Your task to perform on an android device: Search for sushi restaurants on Maps Image 0: 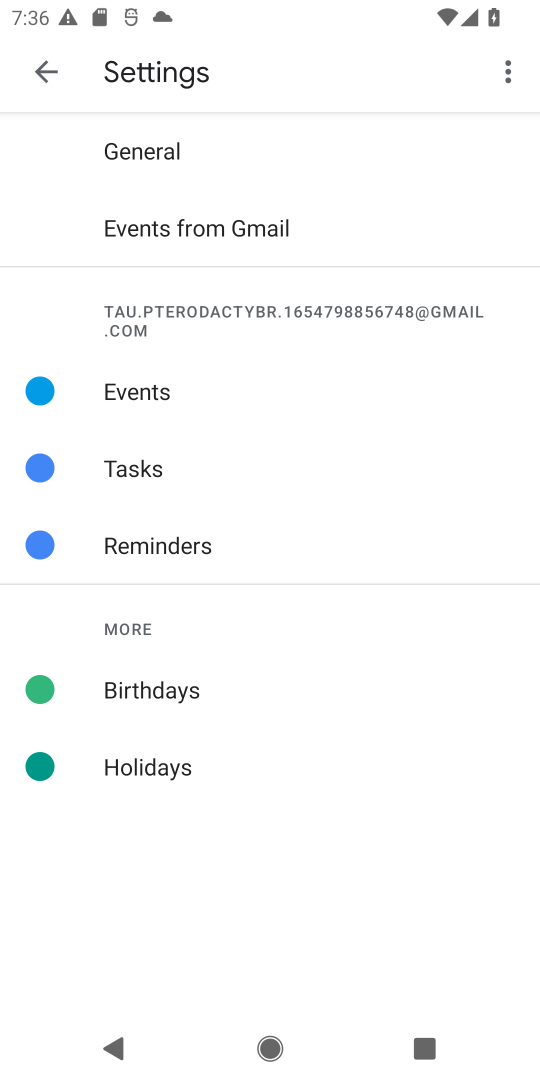
Step 0: press home button
Your task to perform on an android device: Search for sushi restaurants on Maps Image 1: 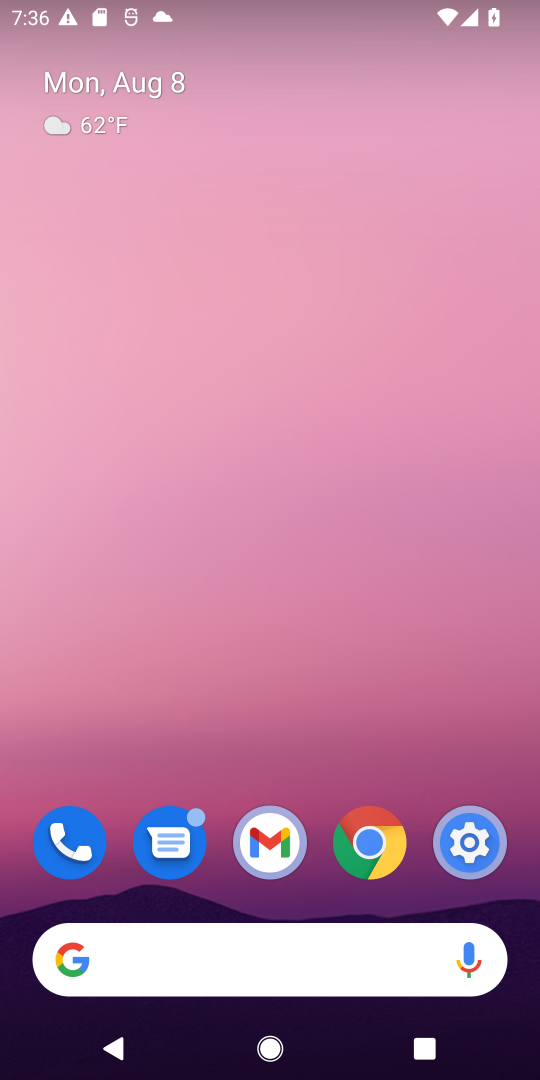
Step 1: drag from (311, 701) to (342, 1)
Your task to perform on an android device: Search for sushi restaurants on Maps Image 2: 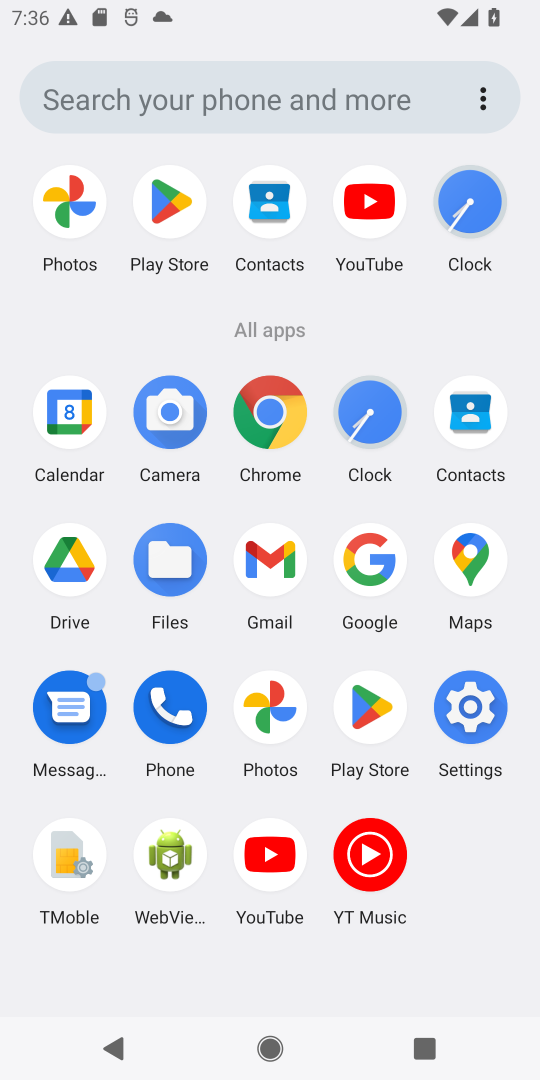
Step 2: click (481, 547)
Your task to perform on an android device: Search for sushi restaurants on Maps Image 3: 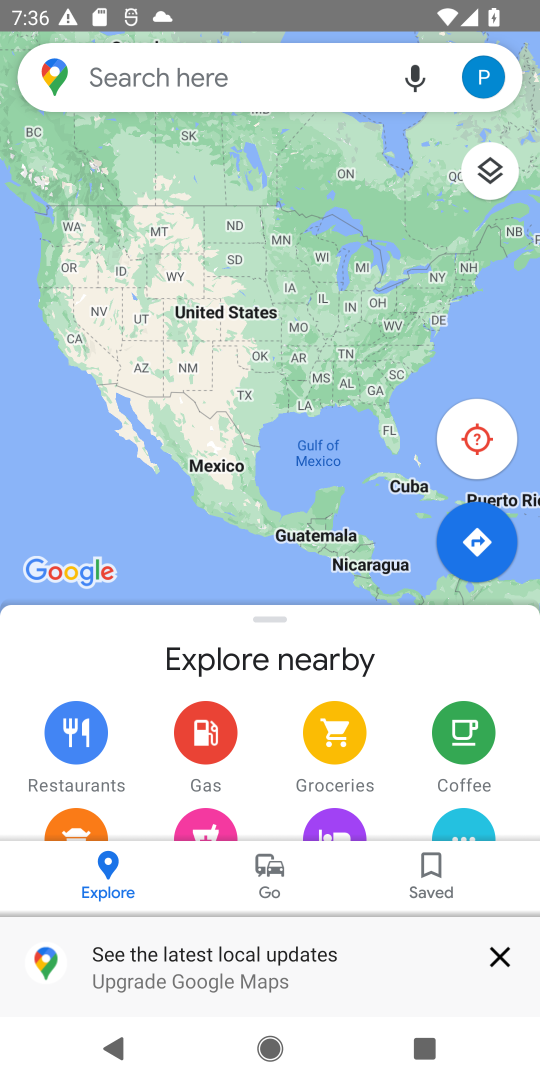
Step 3: click (305, 66)
Your task to perform on an android device: Search for sushi restaurants on Maps Image 4: 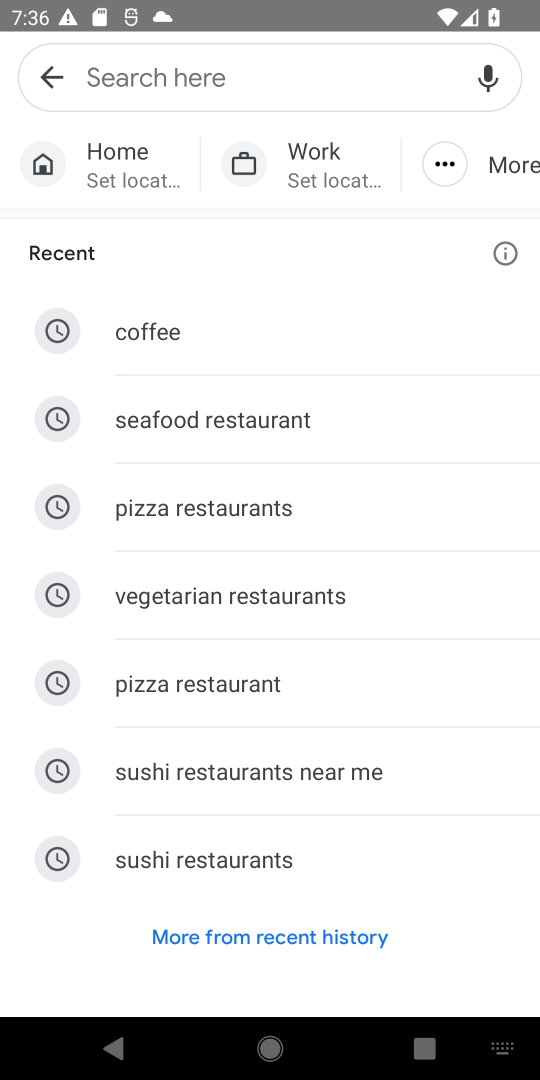
Step 4: click (250, 850)
Your task to perform on an android device: Search for sushi restaurants on Maps Image 5: 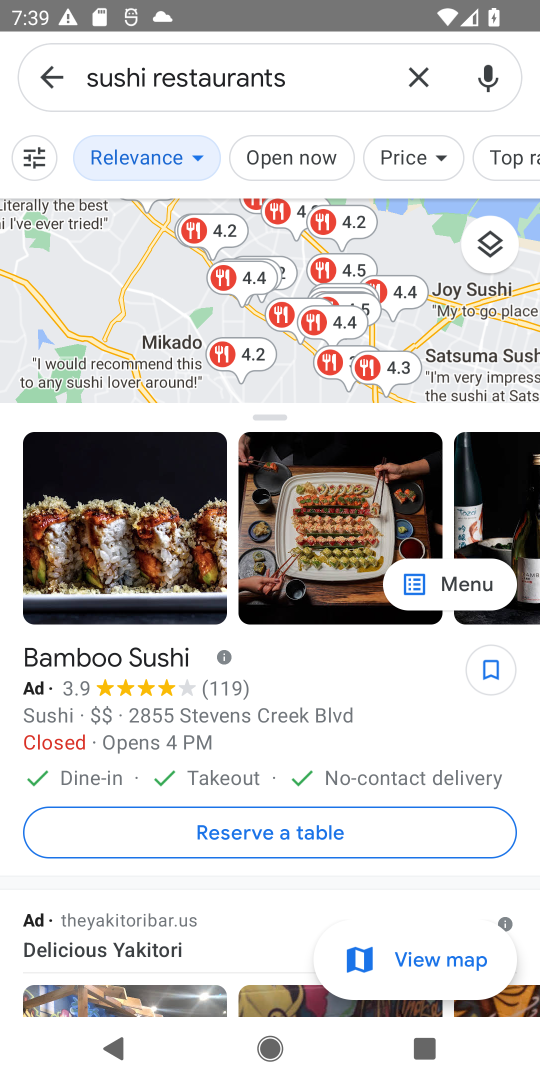
Step 5: task complete